Your task to perform on an android device: Turn on the flashlight Image 0: 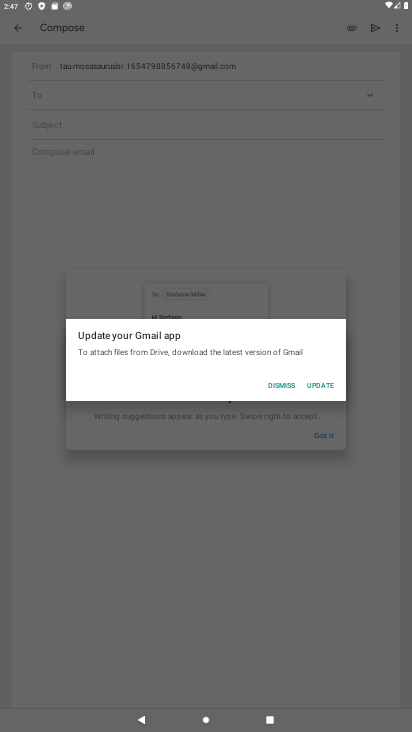
Step 0: drag from (255, 3) to (328, 542)
Your task to perform on an android device: Turn on the flashlight Image 1: 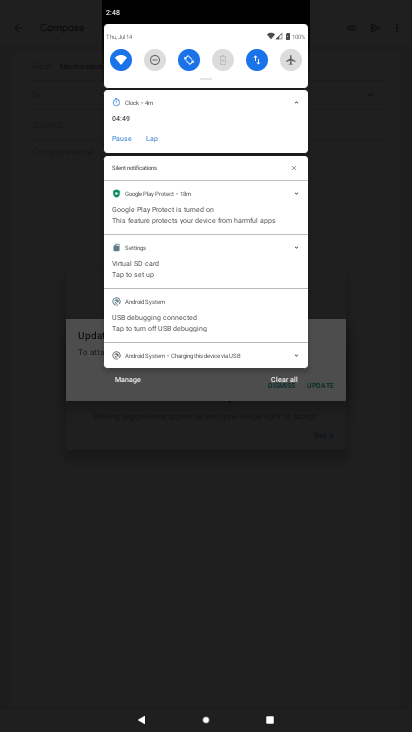
Step 1: task complete